Your task to perform on an android device: Open sound settings Image 0: 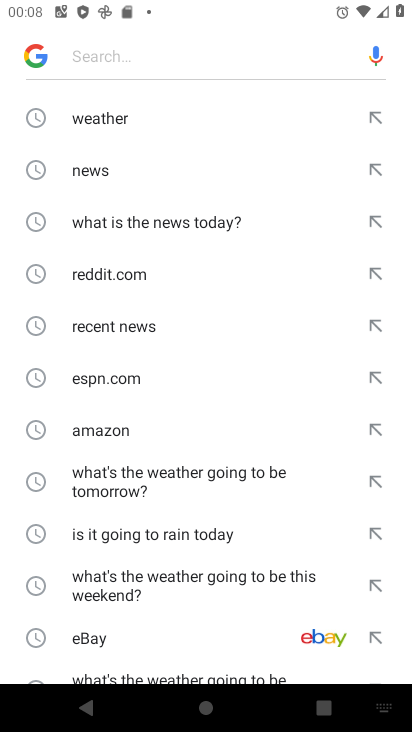
Step 0: press home button
Your task to perform on an android device: Open sound settings Image 1: 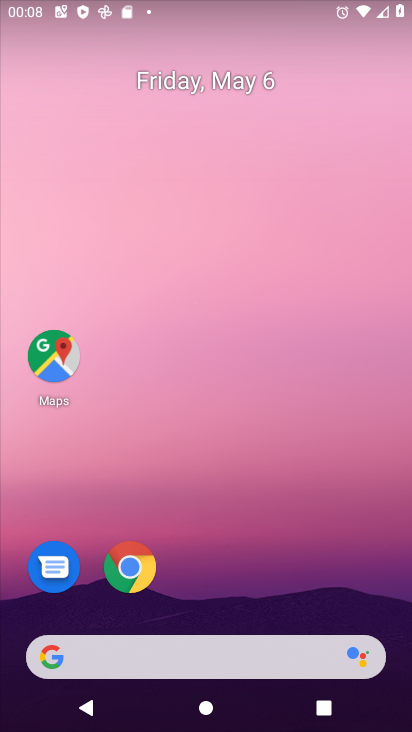
Step 1: drag from (234, 622) to (185, 208)
Your task to perform on an android device: Open sound settings Image 2: 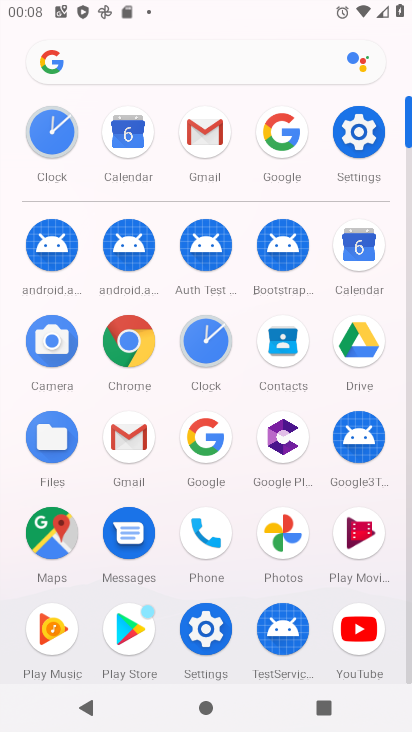
Step 2: click (347, 148)
Your task to perform on an android device: Open sound settings Image 3: 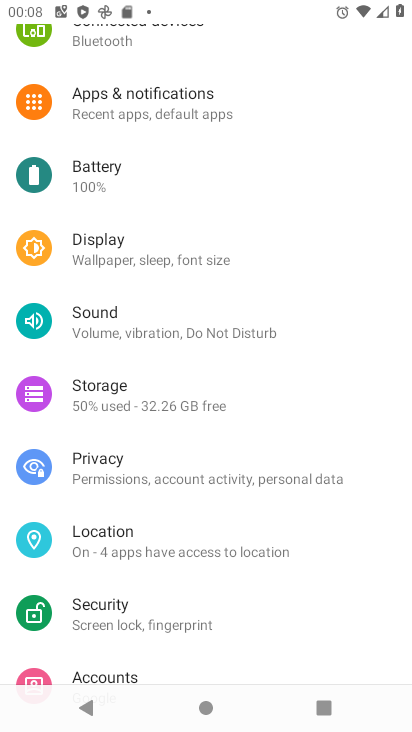
Step 3: click (113, 338)
Your task to perform on an android device: Open sound settings Image 4: 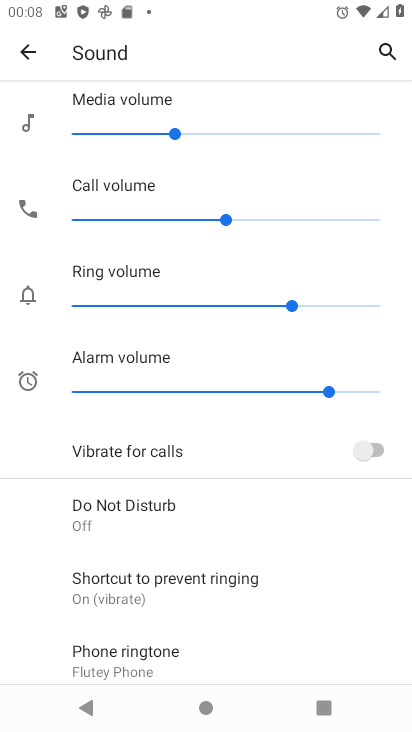
Step 4: task complete